Your task to perform on an android device: toggle pop-ups in chrome Image 0: 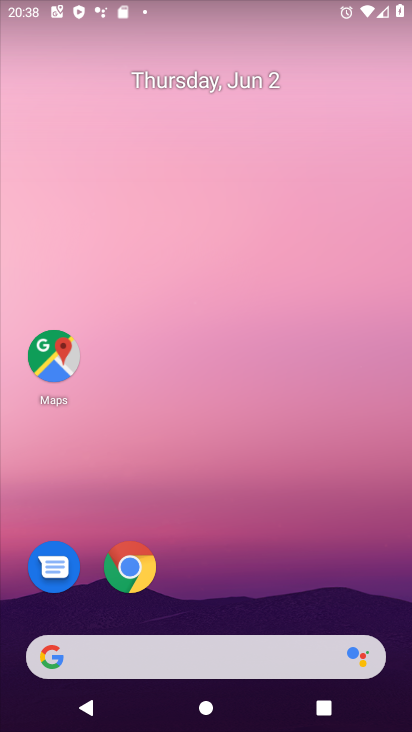
Step 0: click (131, 565)
Your task to perform on an android device: toggle pop-ups in chrome Image 1: 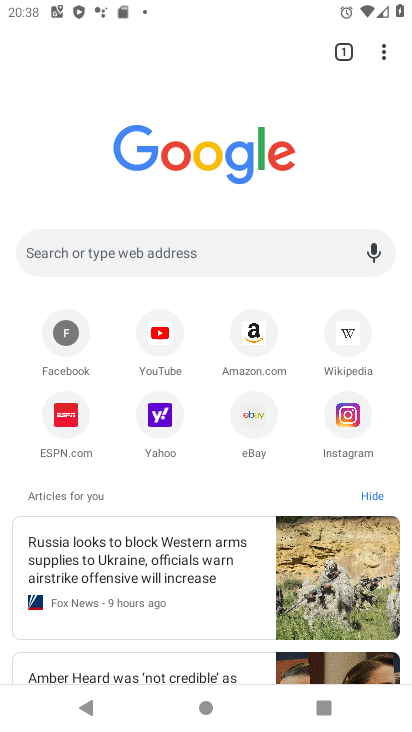
Step 1: click (384, 49)
Your task to perform on an android device: toggle pop-ups in chrome Image 2: 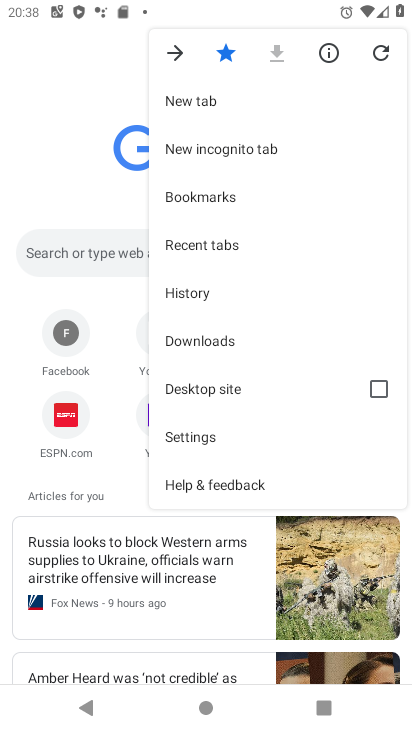
Step 2: click (201, 436)
Your task to perform on an android device: toggle pop-ups in chrome Image 3: 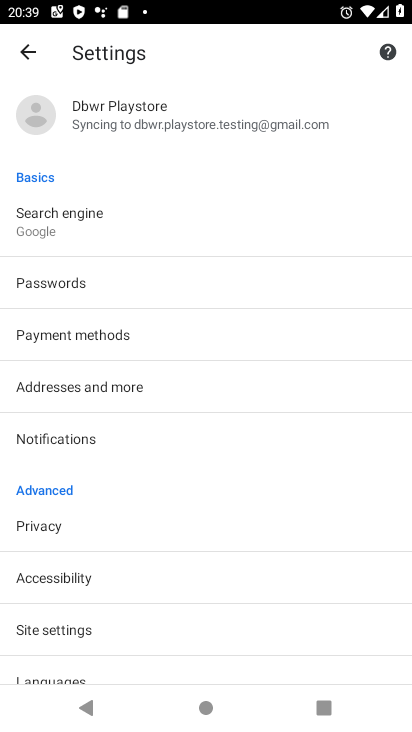
Step 3: drag from (124, 562) to (90, 465)
Your task to perform on an android device: toggle pop-ups in chrome Image 4: 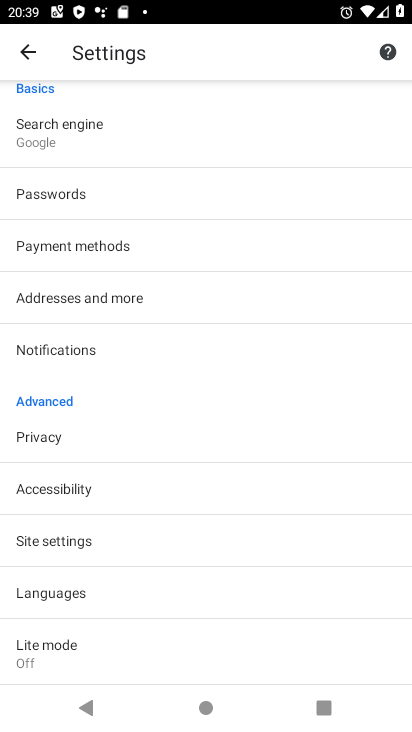
Step 4: click (80, 537)
Your task to perform on an android device: toggle pop-ups in chrome Image 5: 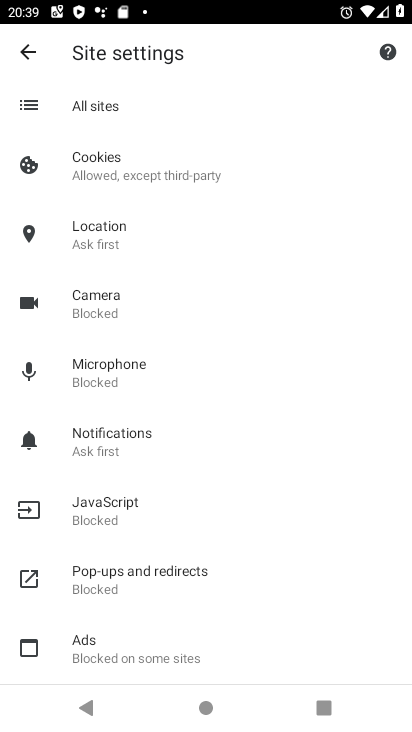
Step 5: click (121, 577)
Your task to perform on an android device: toggle pop-ups in chrome Image 6: 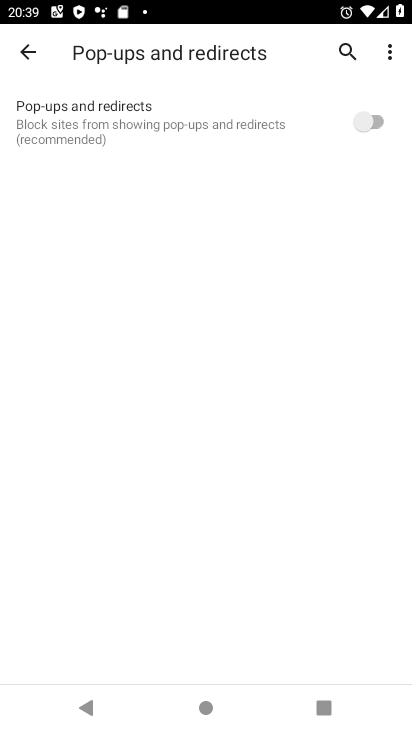
Step 6: click (366, 118)
Your task to perform on an android device: toggle pop-ups in chrome Image 7: 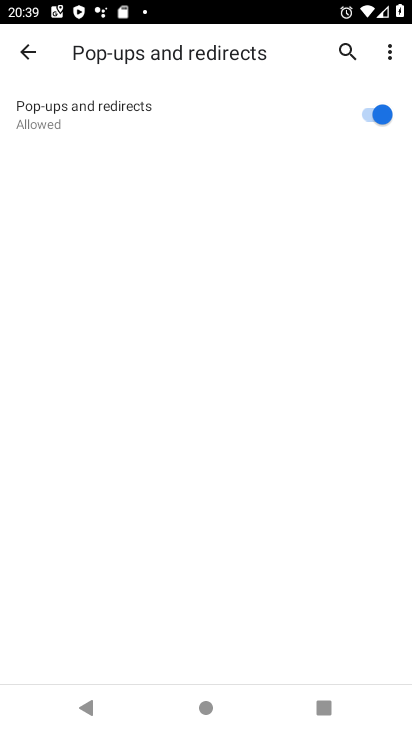
Step 7: task complete